Your task to perform on an android device: toggle javascript in the chrome app Image 0: 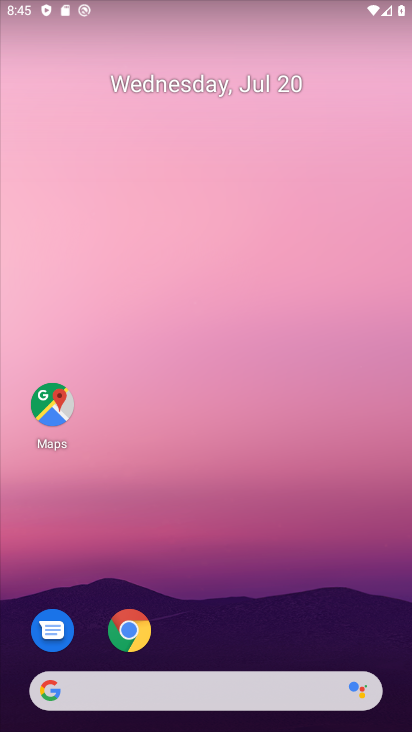
Step 0: click (119, 632)
Your task to perform on an android device: toggle javascript in the chrome app Image 1: 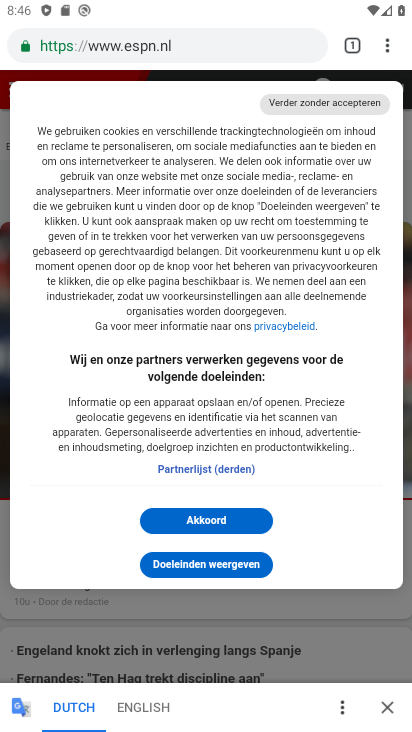
Step 1: drag from (390, 44) to (255, 549)
Your task to perform on an android device: toggle javascript in the chrome app Image 2: 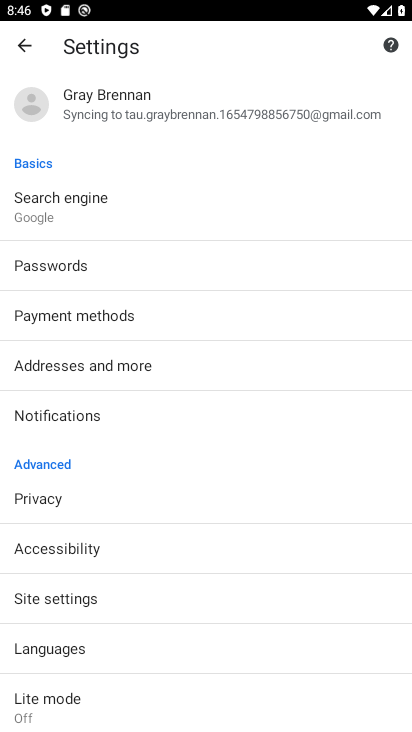
Step 2: click (89, 612)
Your task to perform on an android device: toggle javascript in the chrome app Image 3: 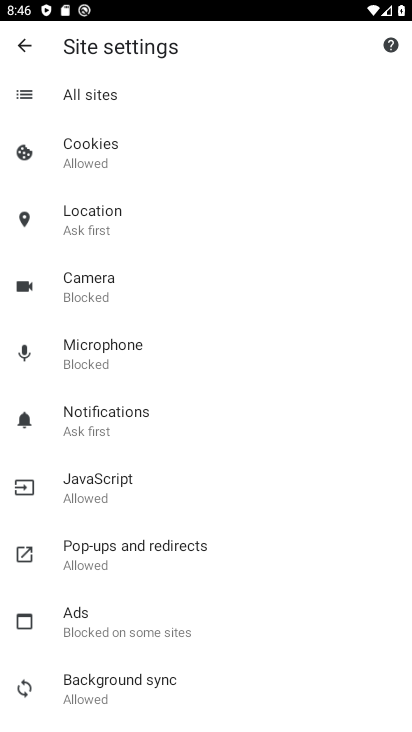
Step 3: click (111, 497)
Your task to perform on an android device: toggle javascript in the chrome app Image 4: 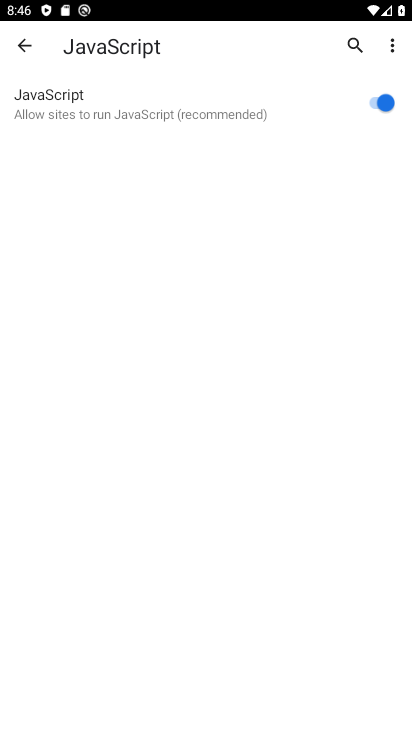
Step 4: click (382, 94)
Your task to perform on an android device: toggle javascript in the chrome app Image 5: 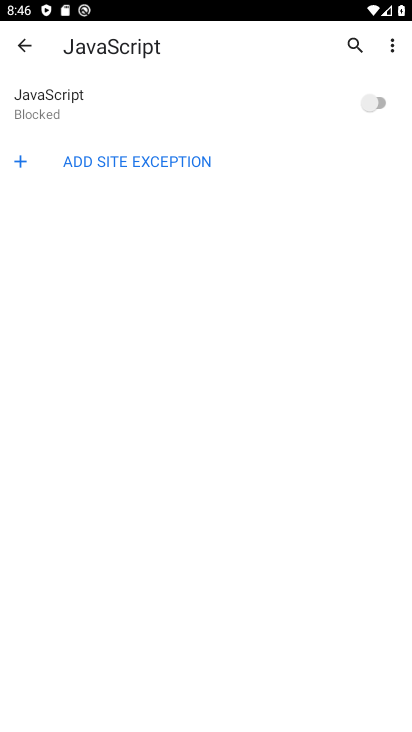
Step 5: task complete